Your task to perform on an android device: change notifications settings Image 0: 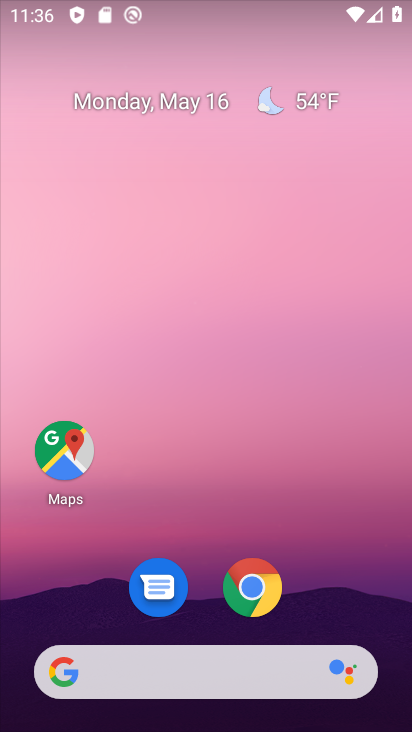
Step 0: drag from (215, 617) to (236, 190)
Your task to perform on an android device: change notifications settings Image 1: 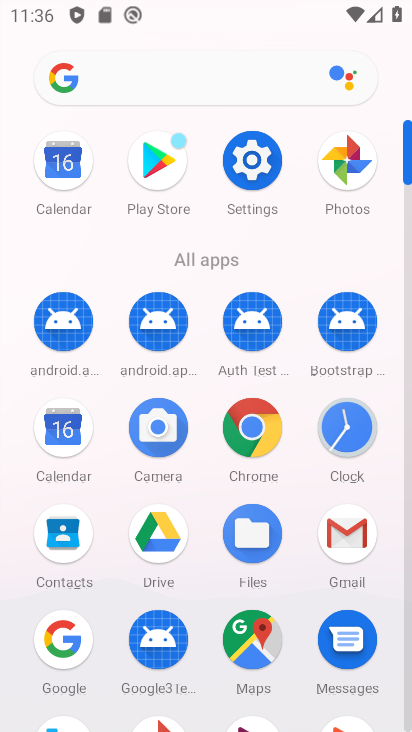
Step 1: click (250, 186)
Your task to perform on an android device: change notifications settings Image 2: 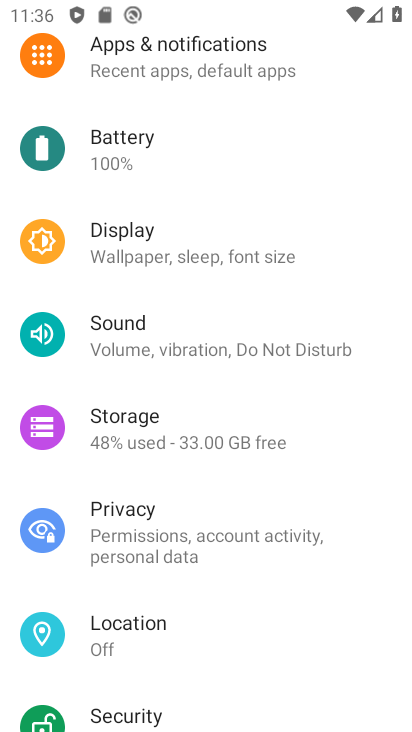
Step 2: click (209, 73)
Your task to perform on an android device: change notifications settings Image 3: 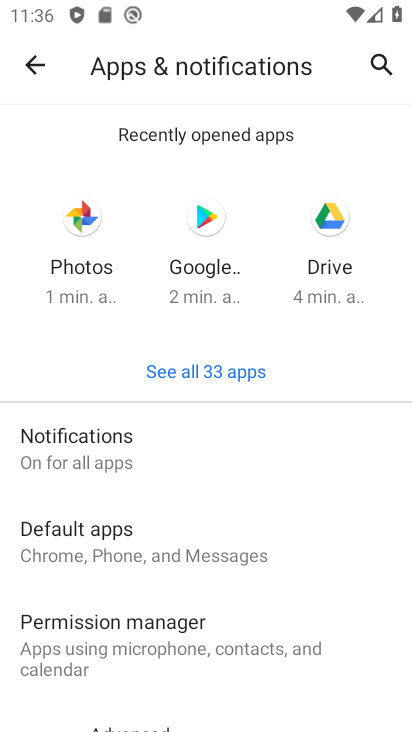
Step 3: drag from (153, 528) to (163, 369)
Your task to perform on an android device: change notifications settings Image 4: 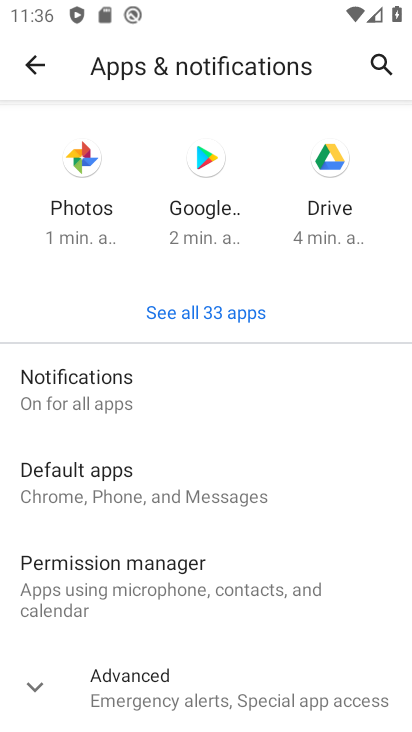
Step 4: click (68, 391)
Your task to perform on an android device: change notifications settings Image 5: 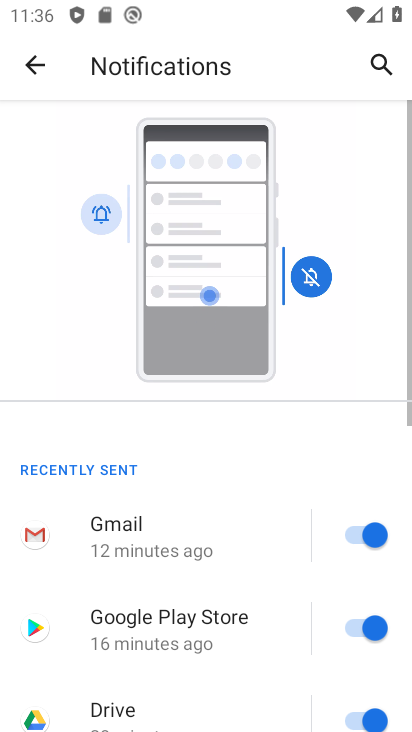
Step 5: drag from (214, 499) to (260, 194)
Your task to perform on an android device: change notifications settings Image 6: 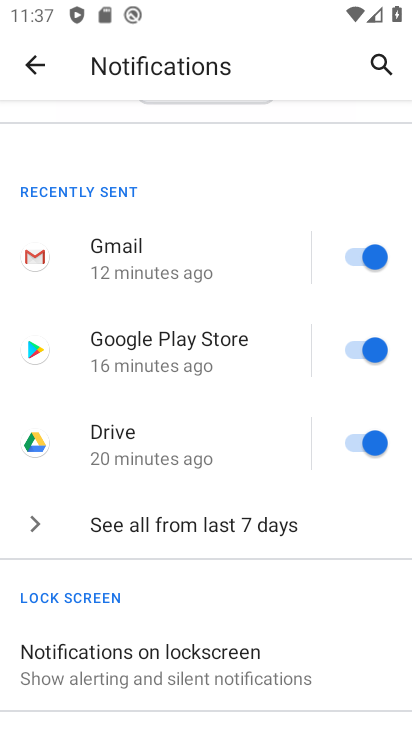
Step 6: click (349, 244)
Your task to perform on an android device: change notifications settings Image 7: 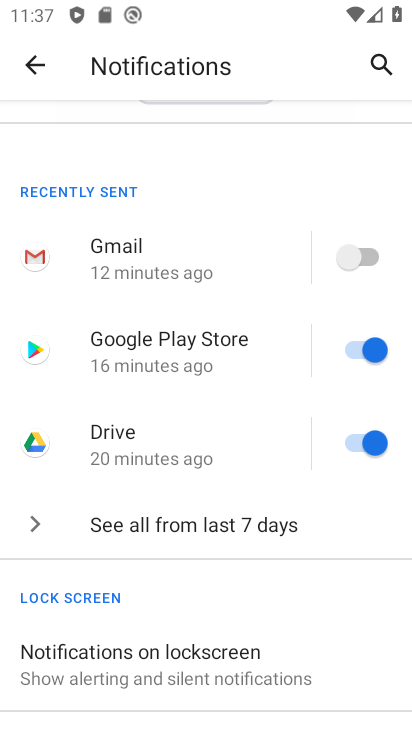
Step 7: click (341, 353)
Your task to perform on an android device: change notifications settings Image 8: 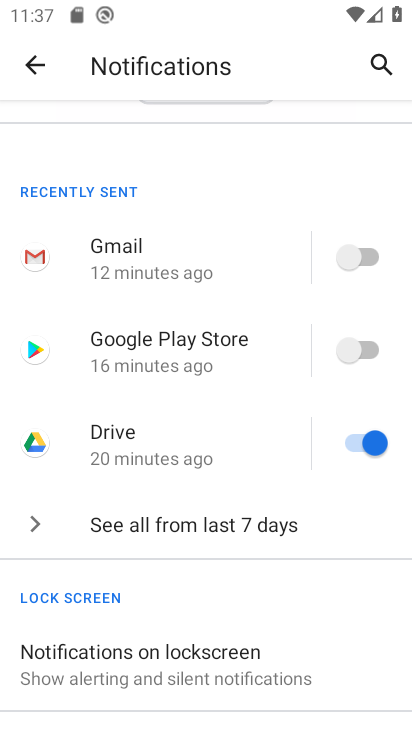
Step 8: click (343, 441)
Your task to perform on an android device: change notifications settings Image 9: 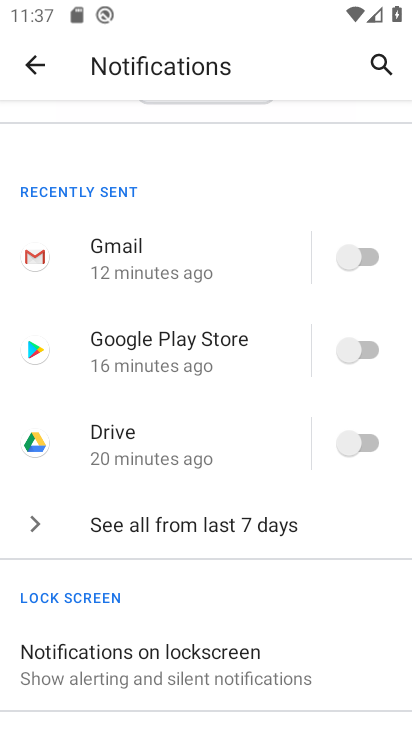
Step 9: drag from (190, 561) to (208, 402)
Your task to perform on an android device: change notifications settings Image 10: 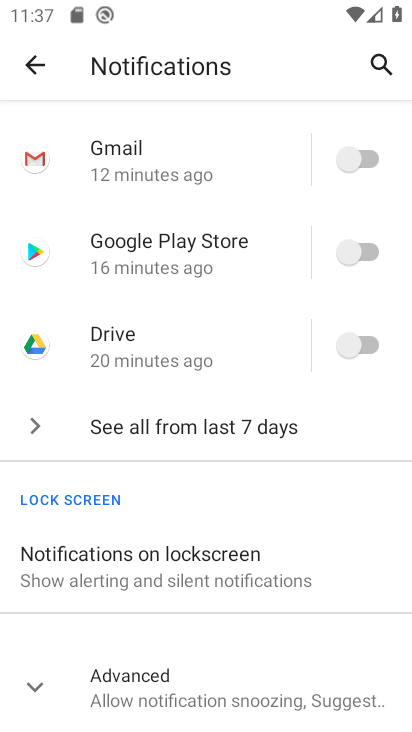
Step 10: click (33, 434)
Your task to perform on an android device: change notifications settings Image 11: 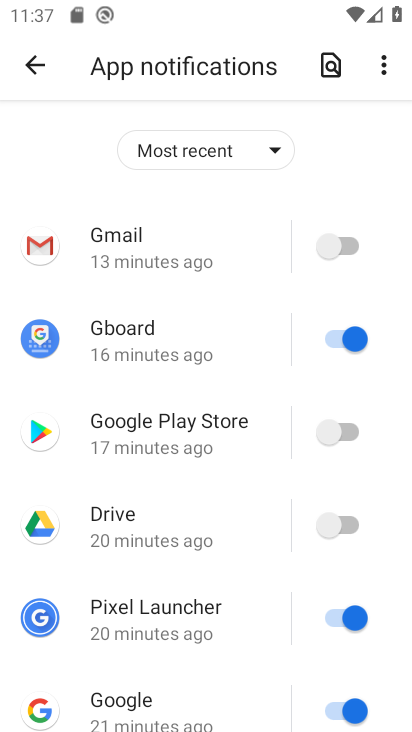
Step 11: drag from (231, 532) to (257, 379)
Your task to perform on an android device: change notifications settings Image 12: 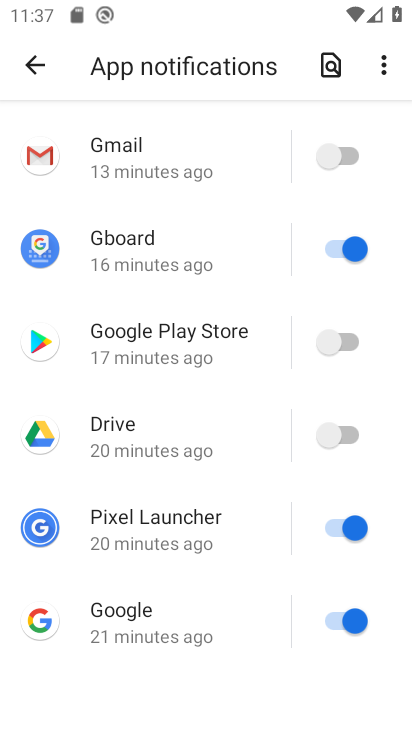
Step 12: click (329, 245)
Your task to perform on an android device: change notifications settings Image 13: 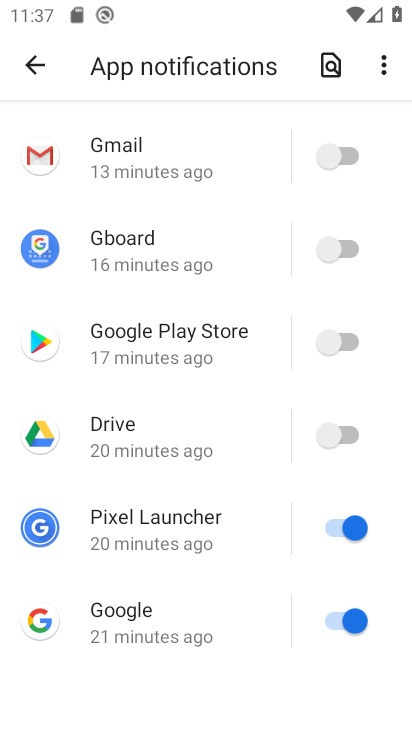
Step 13: click (326, 518)
Your task to perform on an android device: change notifications settings Image 14: 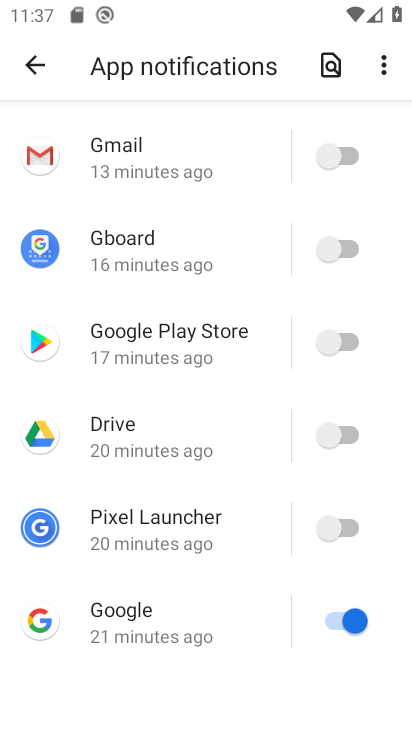
Step 14: click (324, 621)
Your task to perform on an android device: change notifications settings Image 15: 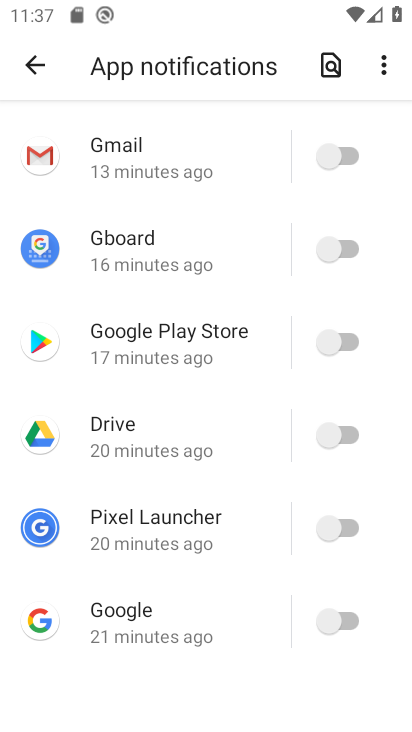
Step 15: task complete